Your task to perform on an android device: Open the phone app and click the voicemail tab. Image 0: 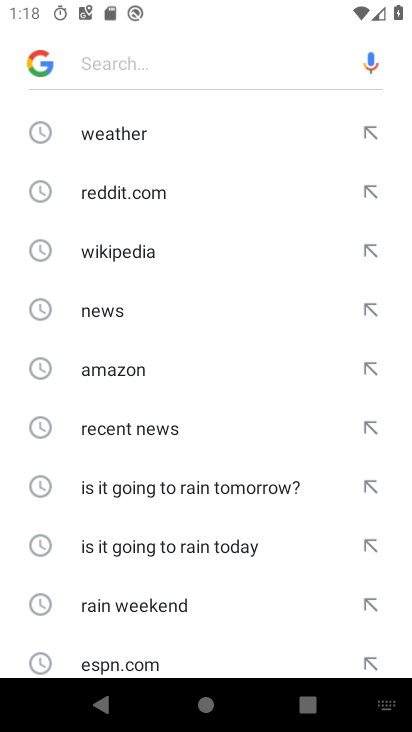
Step 0: press home button
Your task to perform on an android device: Open the phone app and click the voicemail tab. Image 1: 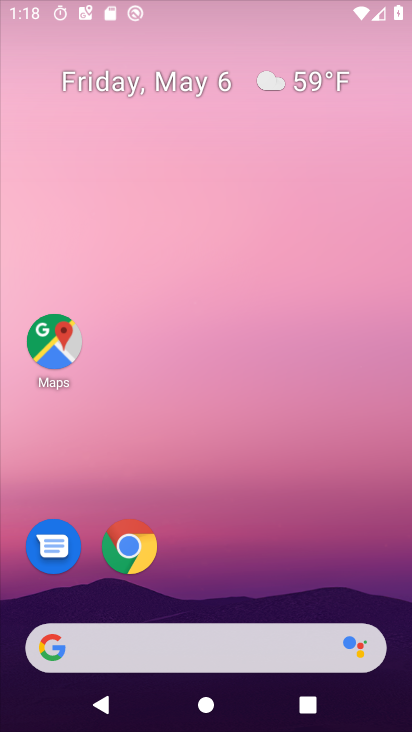
Step 1: drag from (265, 569) to (293, 144)
Your task to perform on an android device: Open the phone app and click the voicemail tab. Image 2: 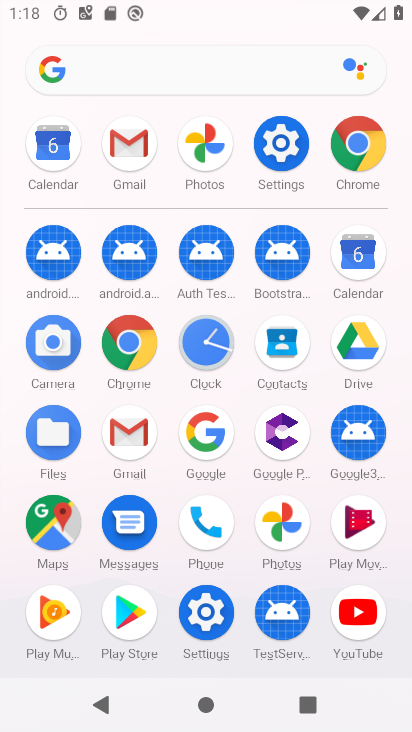
Step 2: click (204, 535)
Your task to perform on an android device: Open the phone app and click the voicemail tab. Image 3: 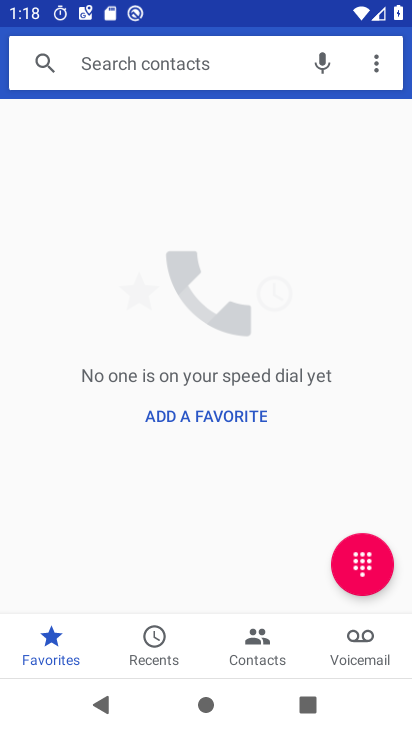
Step 3: click (350, 636)
Your task to perform on an android device: Open the phone app and click the voicemail tab. Image 4: 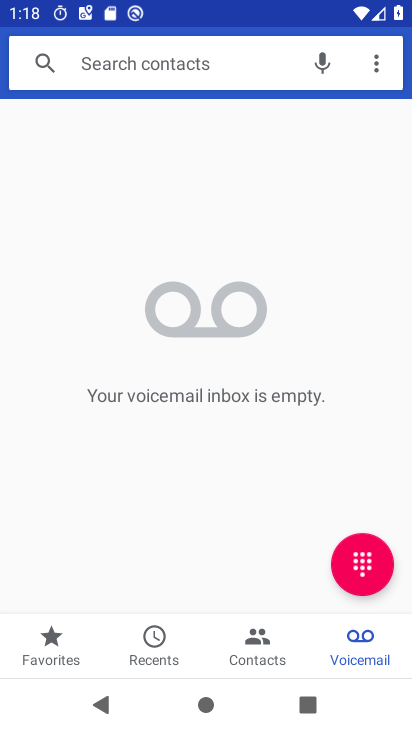
Step 4: task complete